Your task to perform on an android device: toggle location history Image 0: 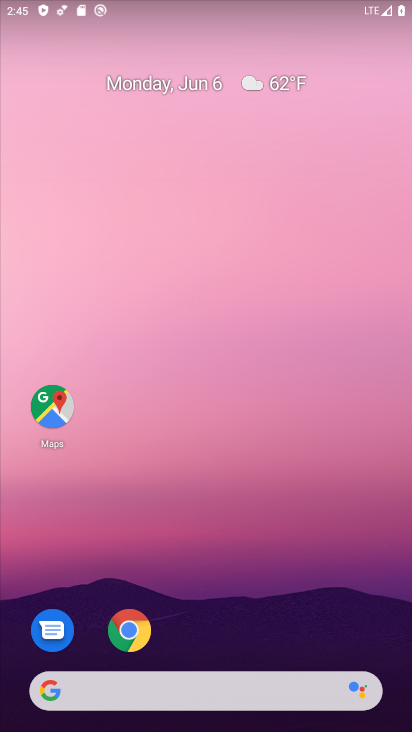
Step 0: press home button
Your task to perform on an android device: toggle location history Image 1: 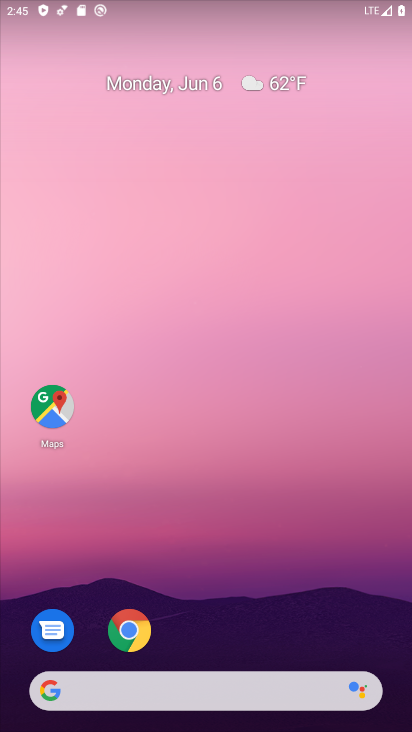
Step 1: click (50, 406)
Your task to perform on an android device: toggle location history Image 2: 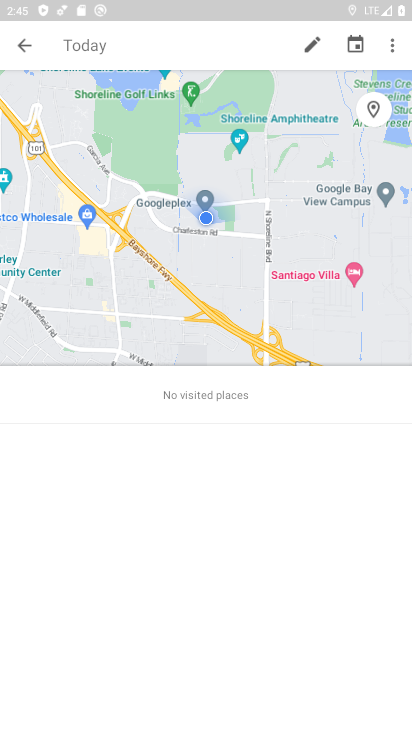
Step 2: click (390, 43)
Your task to perform on an android device: toggle location history Image 3: 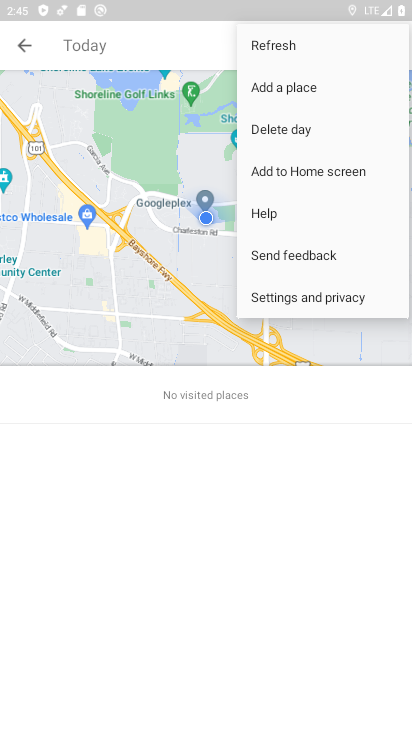
Step 3: click (272, 293)
Your task to perform on an android device: toggle location history Image 4: 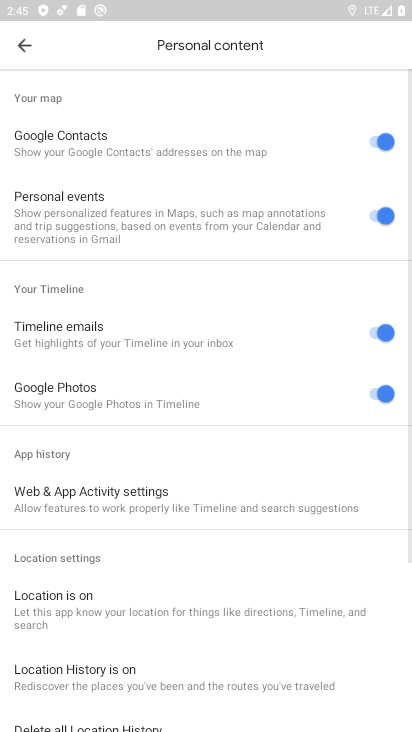
Step 4: drag from (227, 609) to (243, 363)
Your task to perform on an android device: toggle location history Image 5: 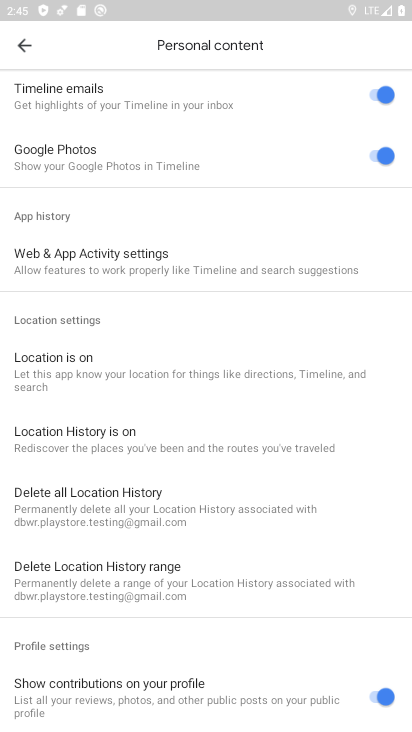
Step 5: click (49, 439)
Your task to perform on an android device: toggle location history Image 6: 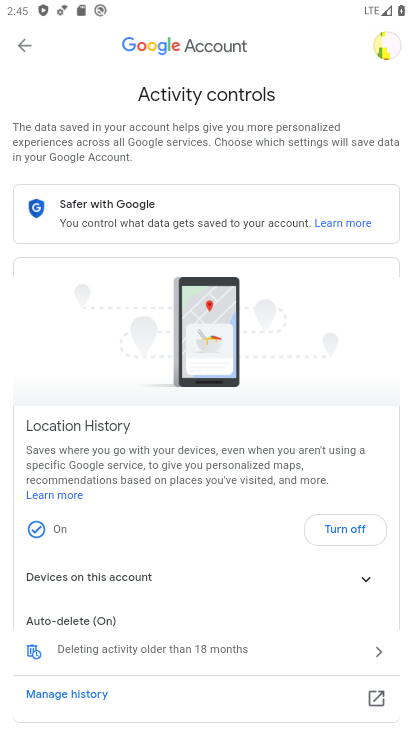
Step 6: click (355, 530)
Your task to perform on an android device: toggle location history Image 7: 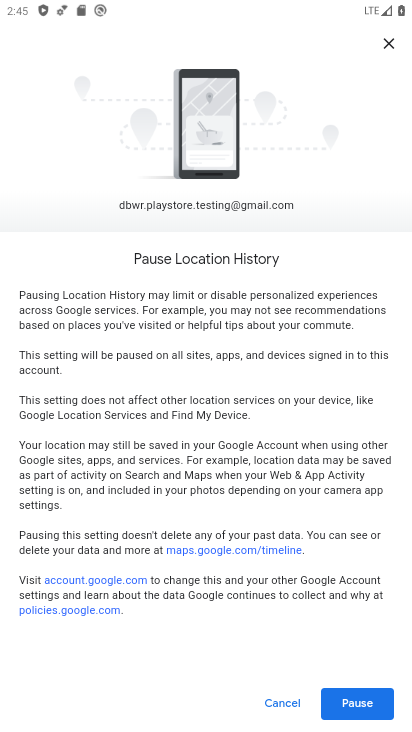
Step 7: click (362, 705)
Your task to perform on an android device: toggle location history Image 8: 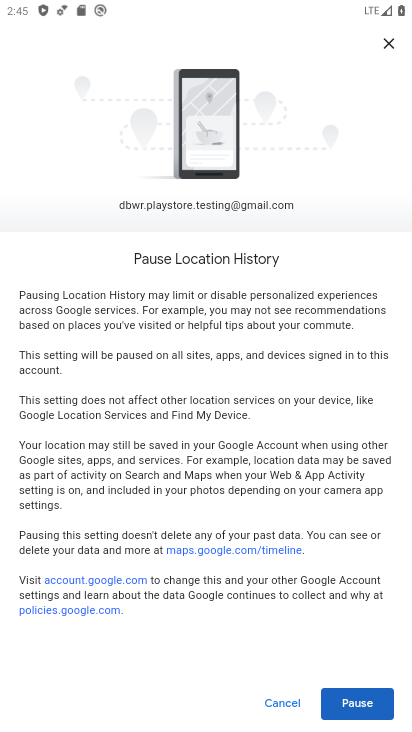
Step 8: click (362, 705)
Your task to perform on an android device: toggle location history Image 9: 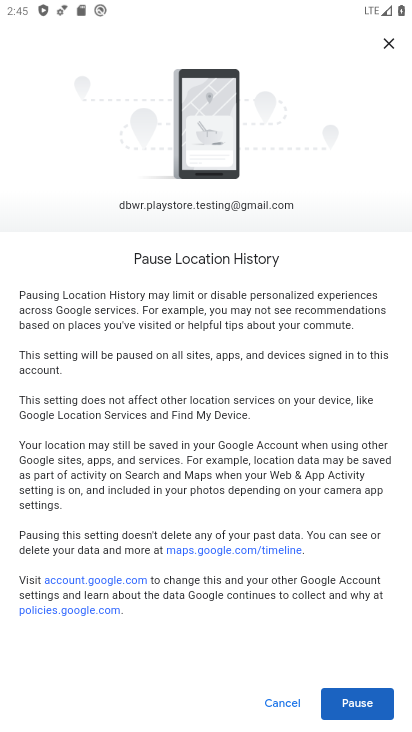
Step 9: click (362, 705)
Your task to perform on an android device: toggle location history Image 10: 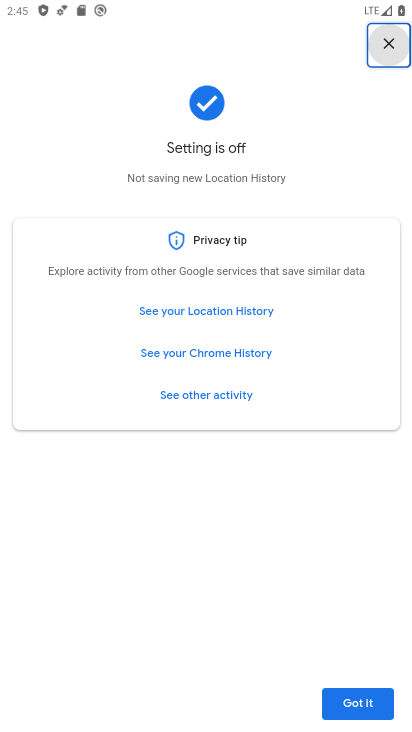
Step 10: click (340, 700)
Your task to perform on an android device: toggle location history Image 11: 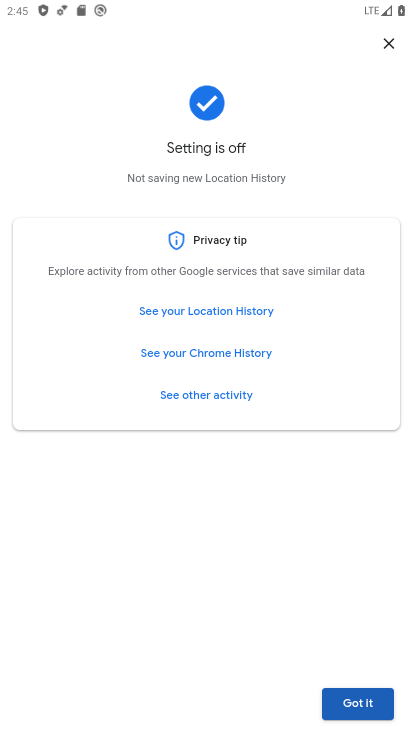
Step 11: task complete